Your task to perform on an android device: check storage Image 0: 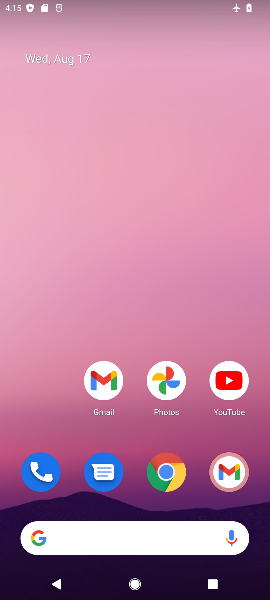
Step 0: drag from (129, 436) to (130, 103)
Your task to perform on an android device: check storage Image 1: 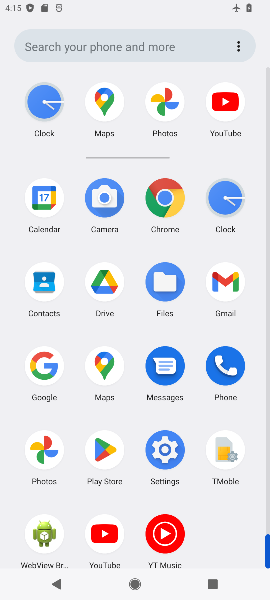
Step 1: click (152, 452)
Your task to perform on an android device: check storage Image 2: 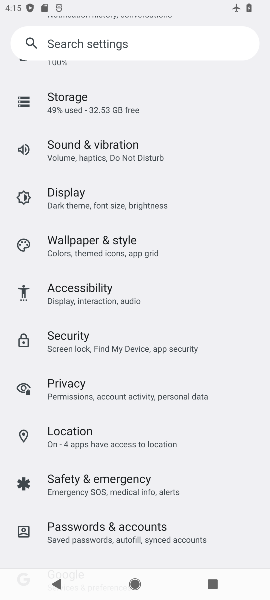
Step 2: click (78, 115)
Your task to perform on an android device: check storage Image 3: 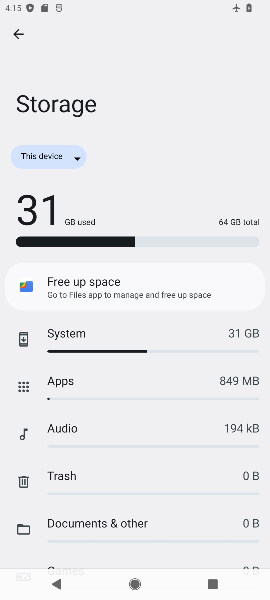
Step 3: task complete